Your task to perform on an android device: remove spam from my inbox in the gmail app Image 0: 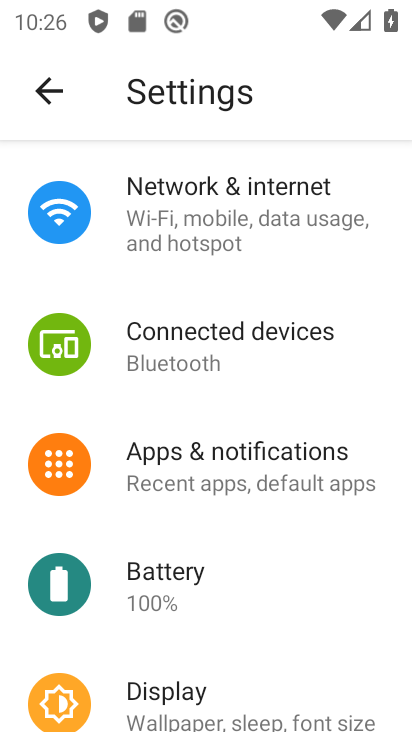
Step 0: press home button
Your task to perform on an android device: remove spam from my inbox in the gmail app Image 1: 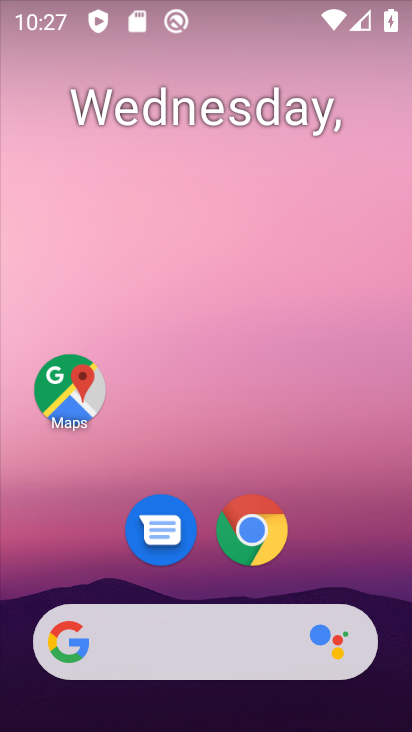
Step 1: drag from (348, 475) to (409, 111)
Your task to perform on an android device: remove spam from my inbox in the gmail app Image 2: 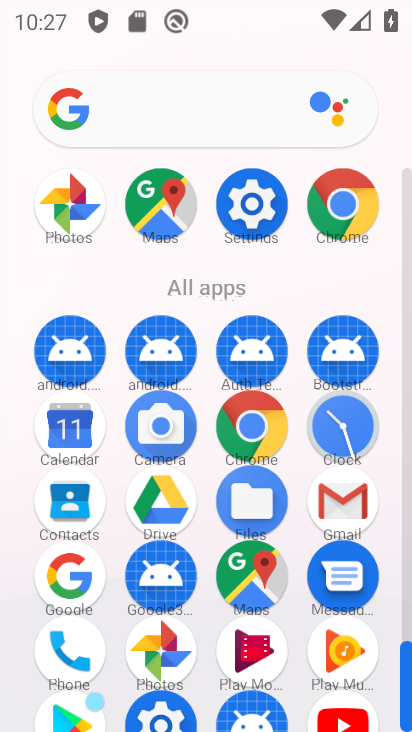
Step 2: click (335, 509)
Your task to perform on an android device: remove spam from my inbox in the gmail app Image 3: 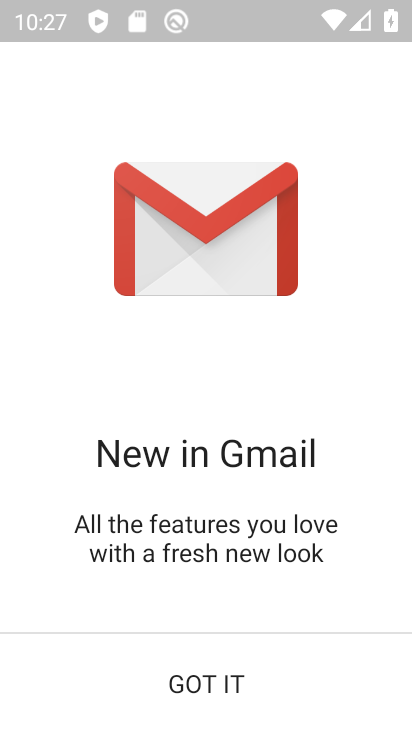
Step 3: click (275, 720)
Your task to perform on an android device: remove spam from my inbox in the gmail app Image 4: 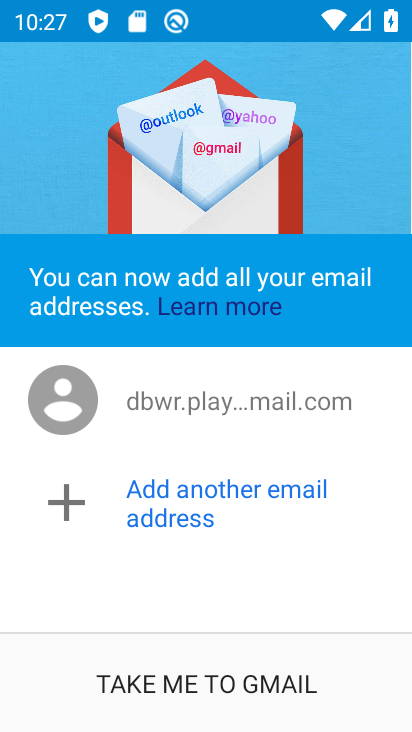
Step 4: click (204, 699)
Your task to perform on an android device: remove spam from my inbox in the gmail app Image 5: 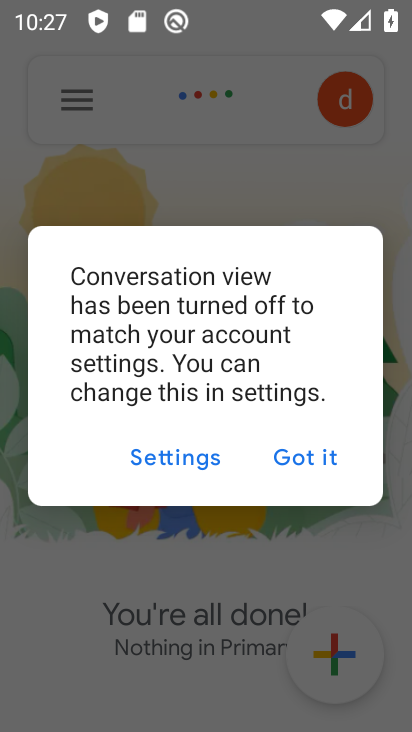
Step 5: click (338, 460)
Your task to perform on an android device: remove spam from my inbox in the gmail app Image 6: 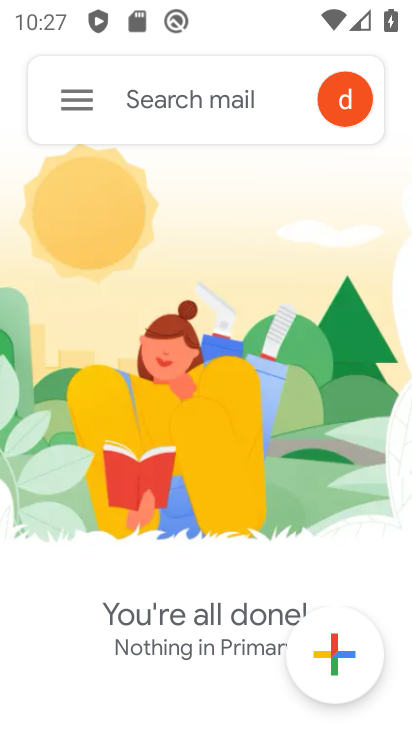
Step 6: click (74, 99)
Your task to perform on an android device: remove spam from my inbox in the gmail app Image 7: 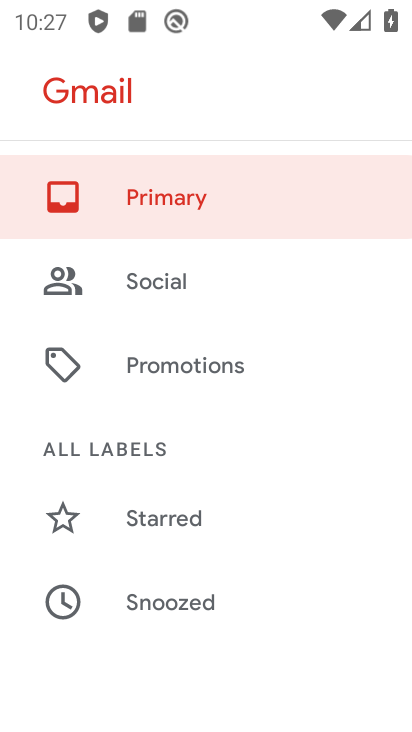
Step 7: click (279, 435)
Your task to perform on an android device: remove spam from my inbox in the gmail app Image 8: 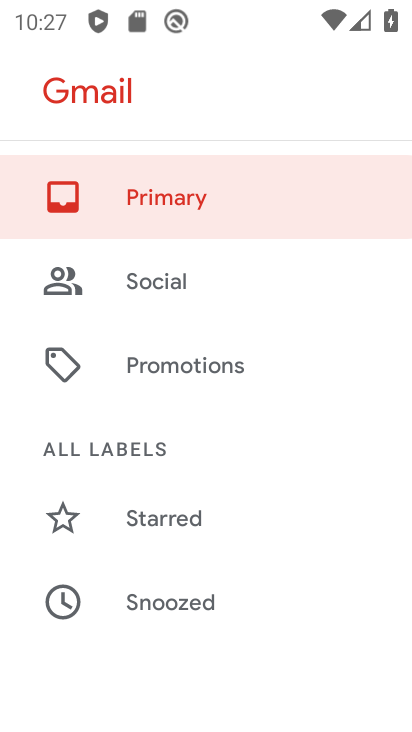
Step 8: drag from (242, 597) to (343, 123)
Your task to perform on an android device: remove spam from my inbox in the gmail app Image 9: 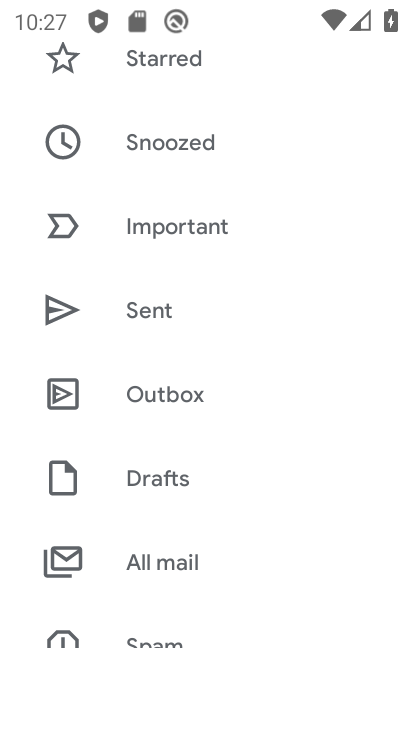
Step 9: drag from (192, 468) to (265, 255)
Your task to perform on an android device: remove spam from my inbox in the gmail app Image 10: 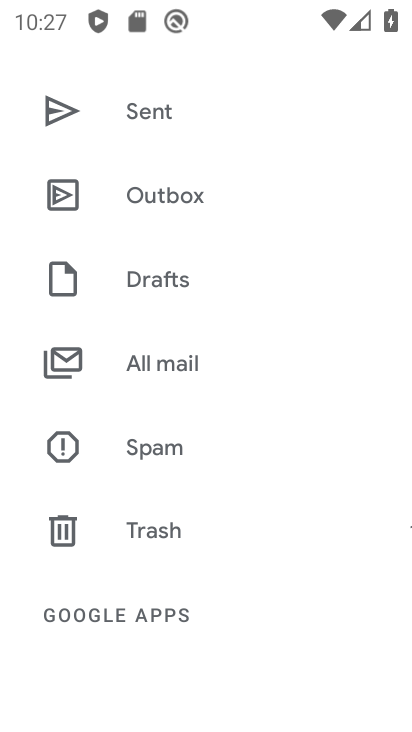
Step 10: click (215, 453)
Your task to perform on an android device: remove spam from my inbox in the gmail app Image 11: 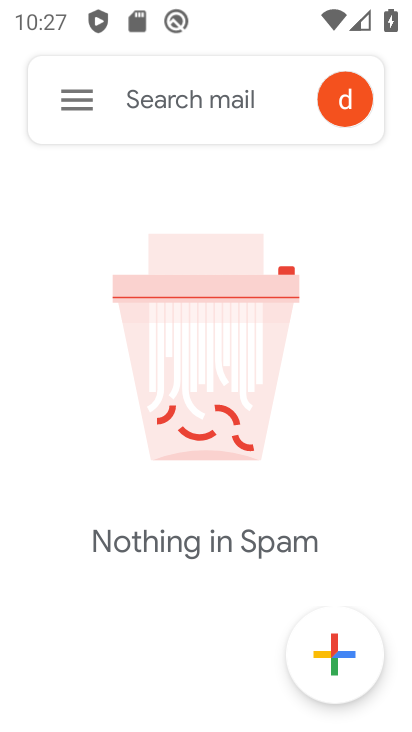
Step 11: task complete